Your task to perform on an android device: Open Google Chrome and open the bookmarks view Image 0: 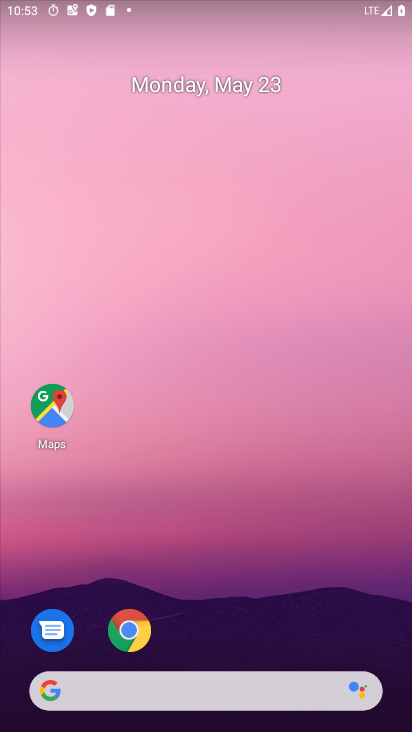
Step 0: click (133, 636)
Your task to perform on an android device: Open Google Chrome and open the bookmarks view Image 1: 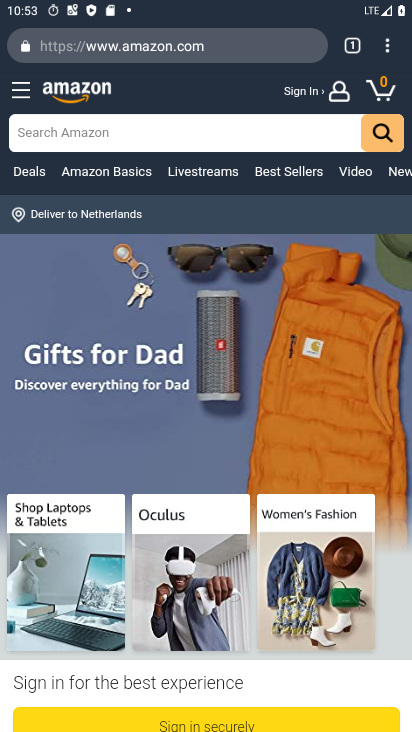
Step 1: click (387, 51)
Your task to perform on an android device: Open Google Chrome and open the bookmarks view Image 2: 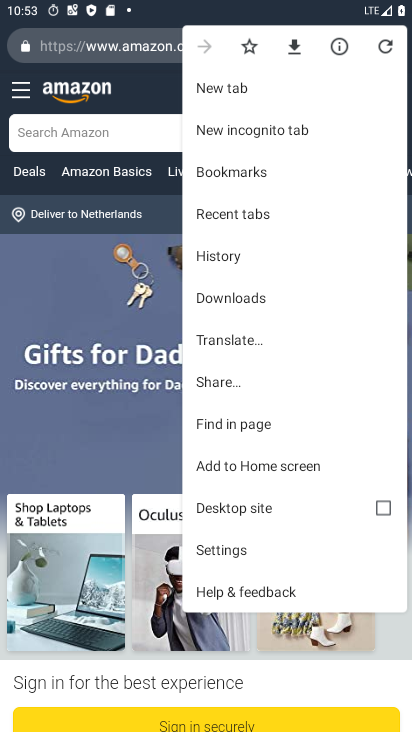
Step 2: click (210, 179)
Your task to perform on an android device: Open Google Chrome and open the bookmarks view Image 3: 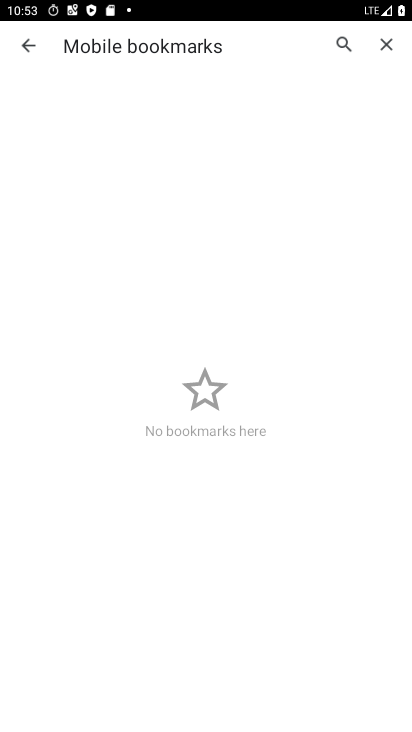
Step 3: task complete